Your task to perform on an android device: Show me productivity apps on the Play Store Image 0: 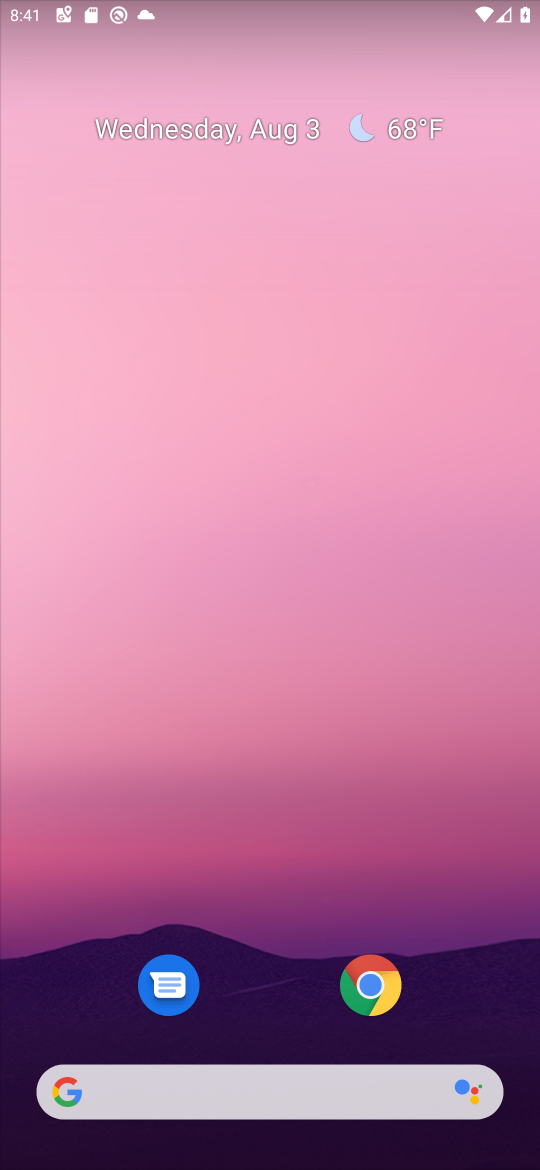
Step 0: drag from (253, 991) to (197, 279)
Your task to perform on an android device: Show me productivity apps on the Play Store Image 1: 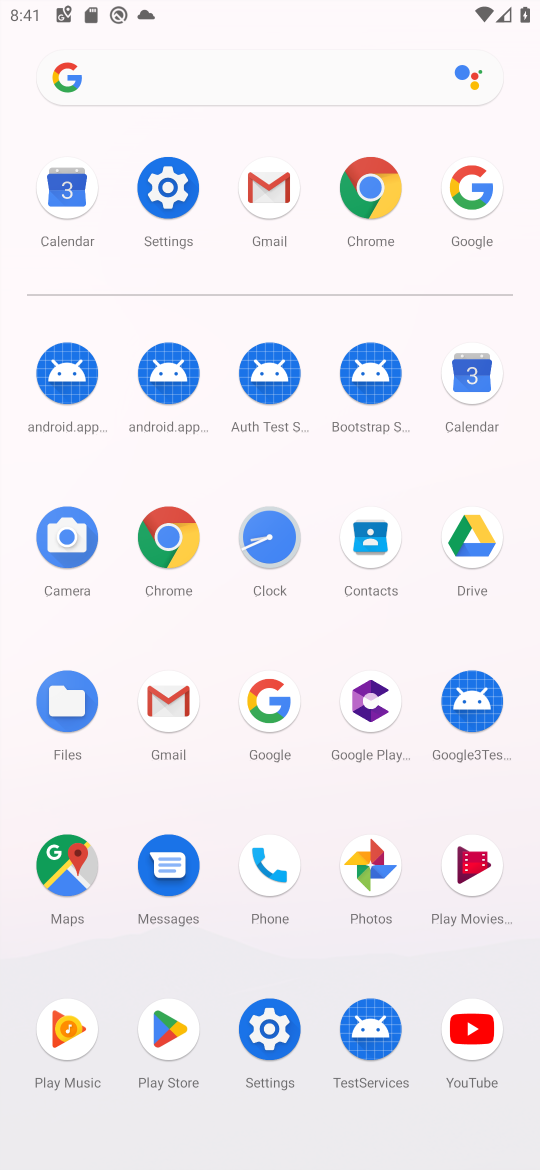
Step 1: click (178, 1007)
Your task to perform on an android device: Show me productivity apps on the Play Store Image 2: 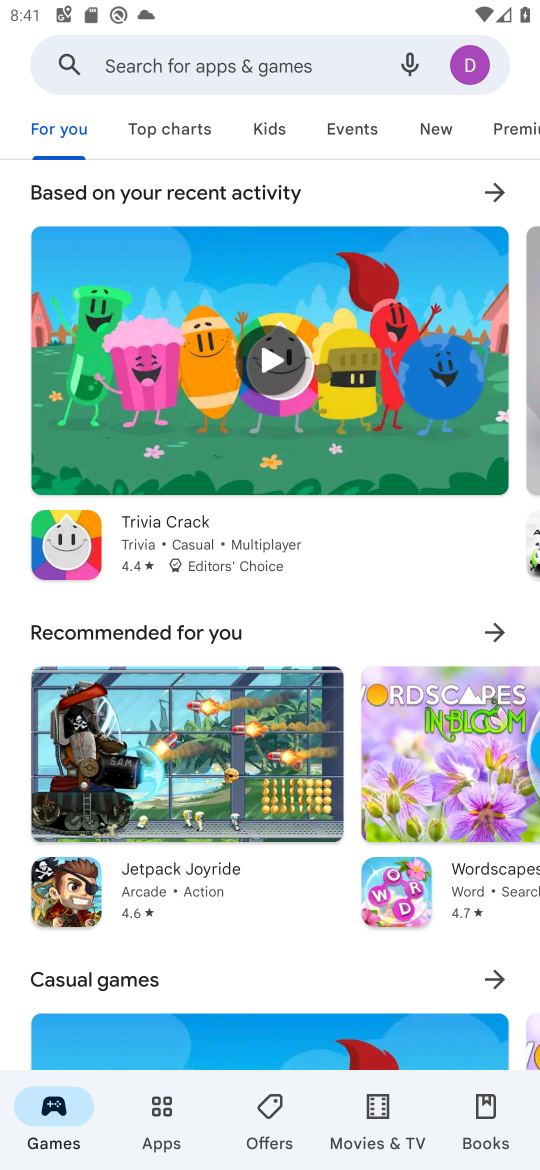
Step 2: click (151, 1126)
Your task to perform on an android device: Show me productivity apps on the Play Store Image 3: 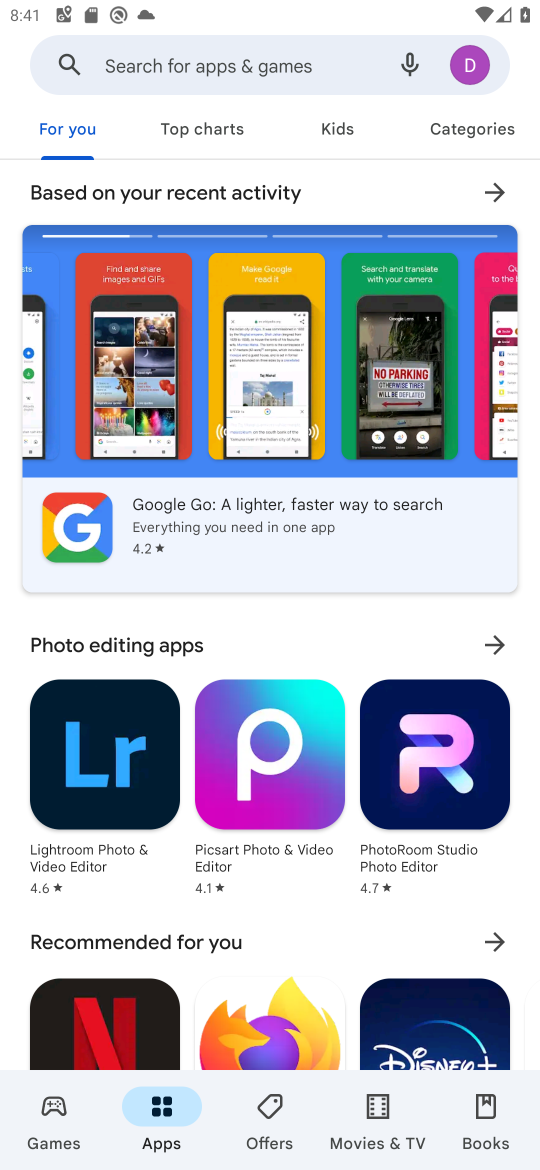
Step 3: click (485, 115)
Your task to perform on an android device: Show me productivity apps on the Play Store Image 4: 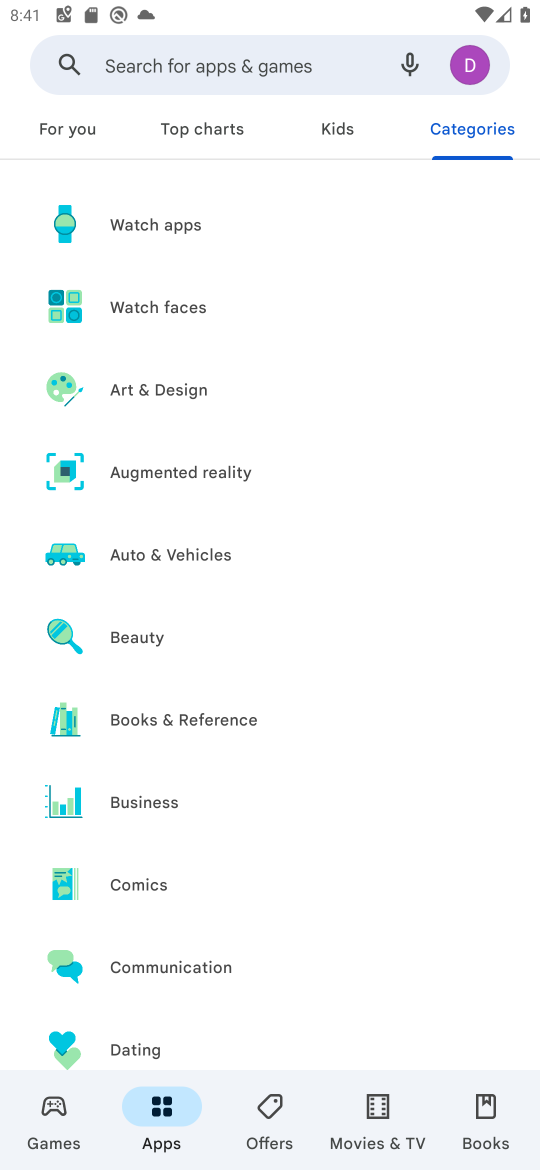
Step 4: drag from (196, 930) to (195, 292)
Your task to perform on an android device: Show me productivity apps on the Play Store Image 5: 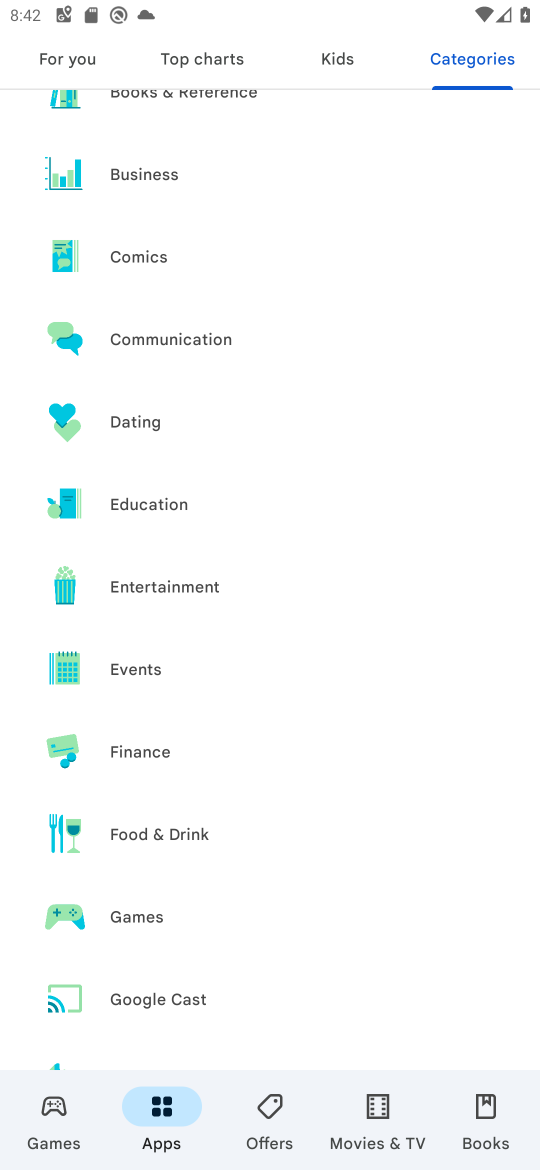
Step 5: drag from (208, 936) to (295, 356)
Your task to perform on an android device: Show me productivity apps on the Play Store Image 6: 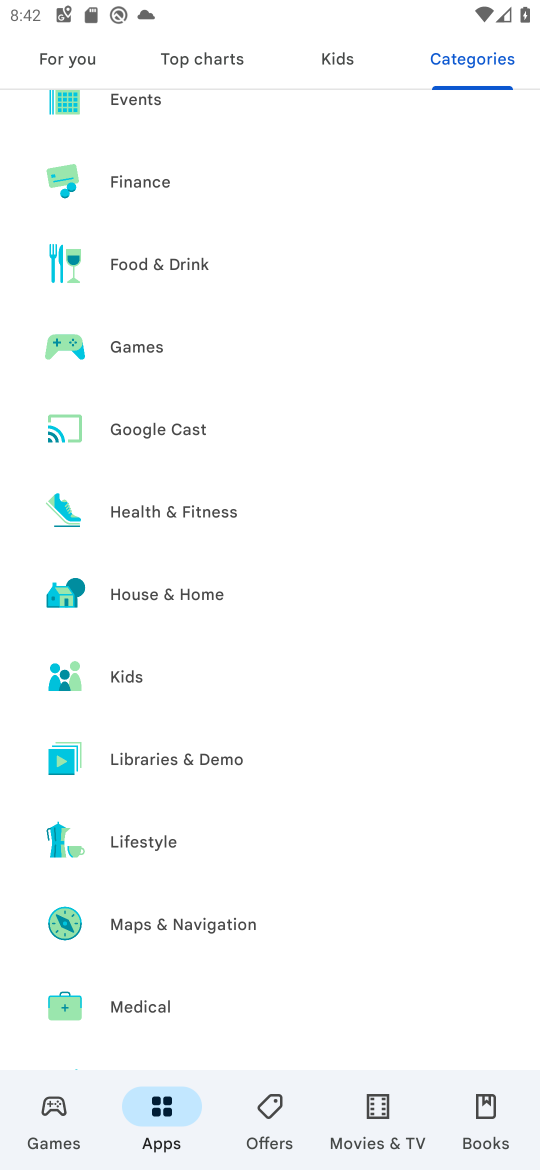
Step 6: drag from (225, 908) to (289, 421)
Your task to perform on an android device: Show me productivity apps on the Play Store Image 7: 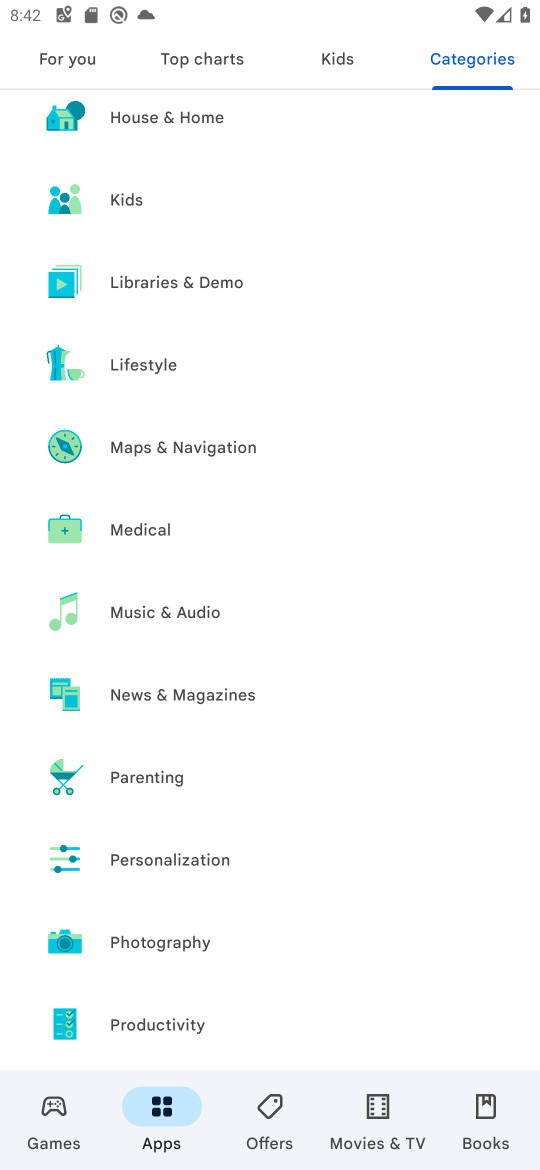
Step 7: drag from (219, 917) to (253, 487)
Your task to perform on an android device: Show me productivity apps on the Play Store Image 8: 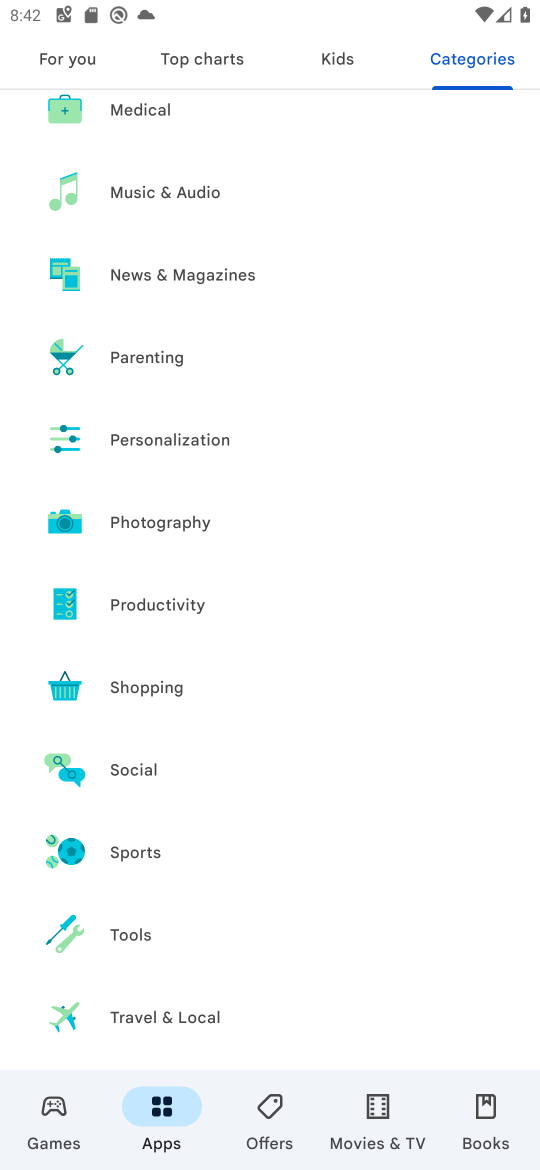
Step 8: click (196, 612)
Your task to perform on an android device: Show me productivity apps on the Play Store Image 9: 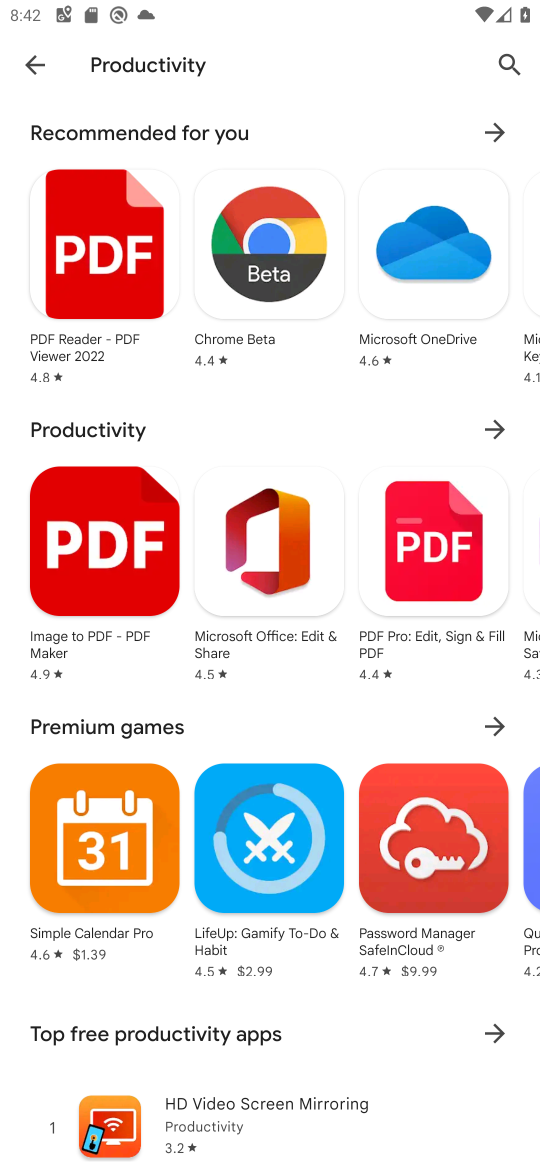
Step 9: task complete